Your task to perform on an android device: move an email to a new category in the gmail app Image 0: 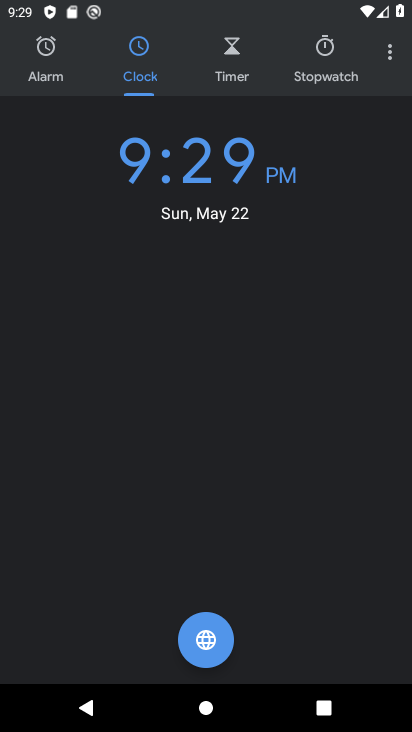
Step 0: press home button
Your task to perform on an android device: move an email to a new category in the gmail app Image 1: 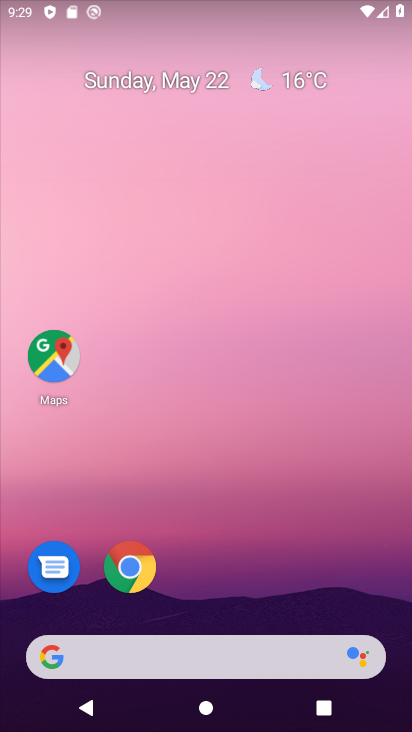
Step 1: drag from (225, 621) to (380, 65)
Your task to perform on an android device: move an email to a new category in the gmail app Image 2: 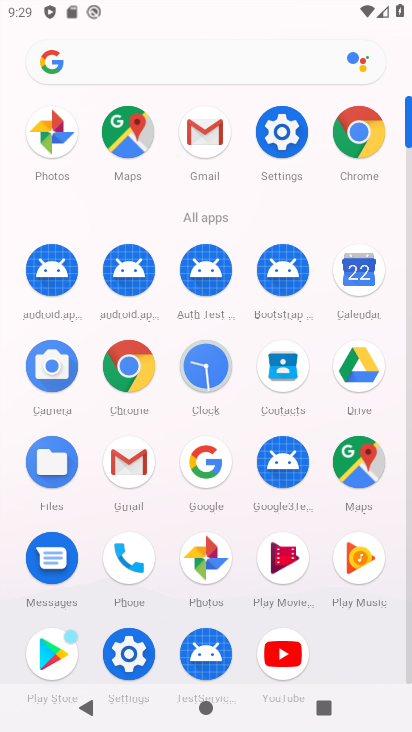
Step 2: click (126, 467)
Your task to perform on an android device: move an email to a new category in the gmail app Image 3: 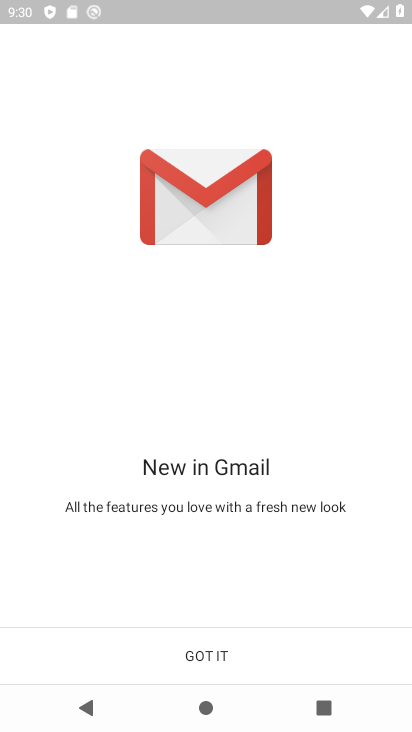
Step 3: click (257, 662)
Your task to perform on an android device: move an email to a new category in the gmail app Image 4: 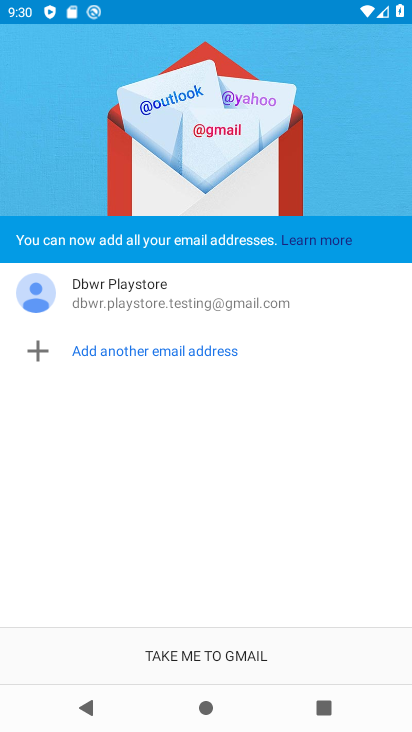
Step 4: click (257, 662)
Your task to perform on an android device: move an email to a new category in the gmail app Image 5: 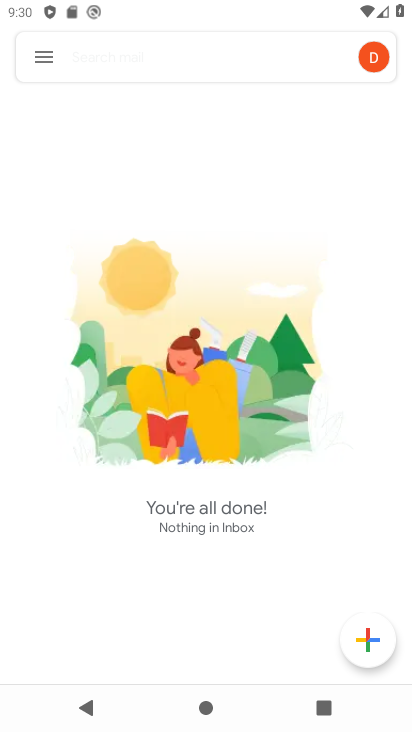
Step 5: task complete